Your task to perform on an android device: Go to Google Image 0: 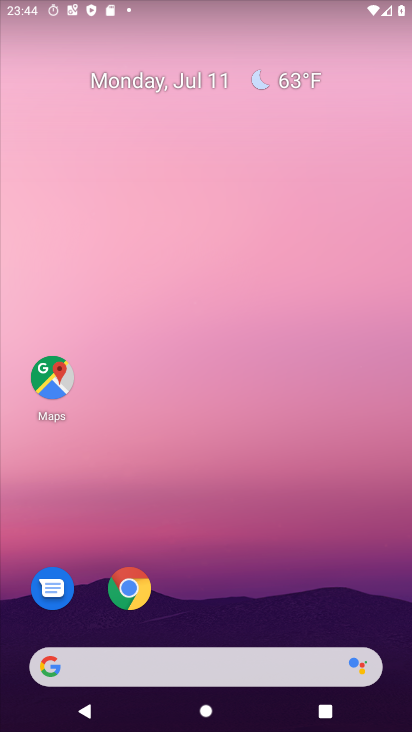
Step 0: drag from (246, 665) to (217, 217)
Your task to perform on an android device: Go to Google Image 1: 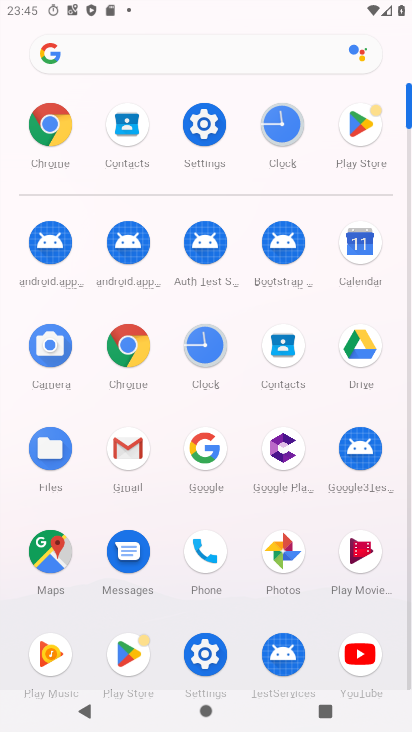
Step 1: click (206, 454)
Your task to perform on an android device: Go to Google Image 2: 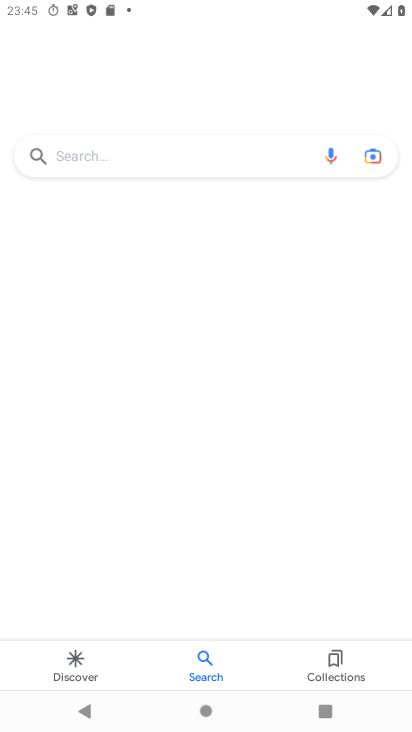
Step 2: task complete